Your task to perform on an android device: install app "DuckDuckGo Privacy Browser" Image 0: 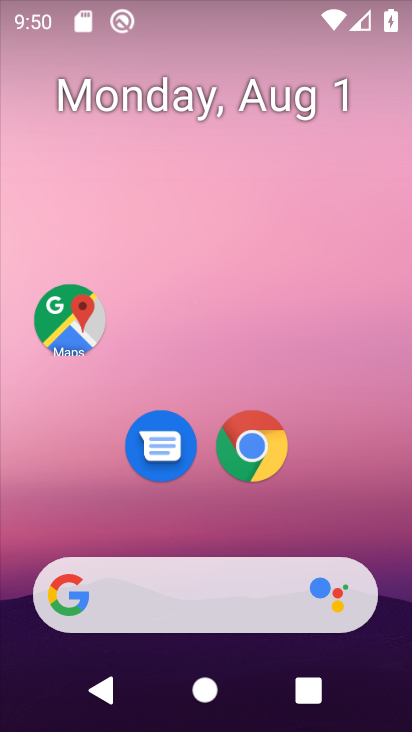
Step 0: drag from (206, 512) to (201, 78)
Your task to perform on an android device: install app "DuckDuckGo Privacy Browser" Image 1: 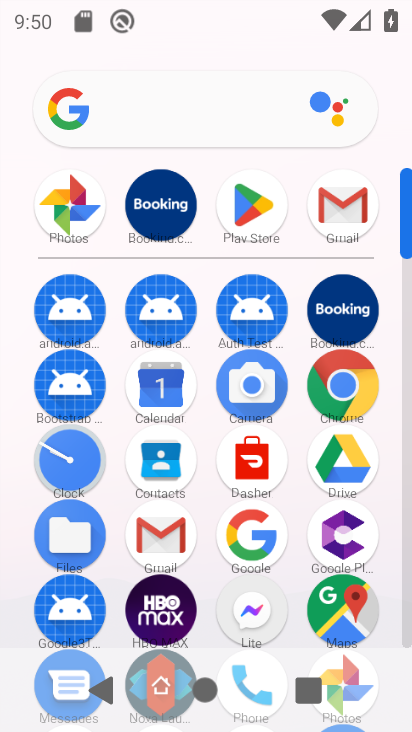
Step 1: click (244, 175)
Your task to perform on an android device: install app "DuckDuckGo Privacy Browser" Image 2: 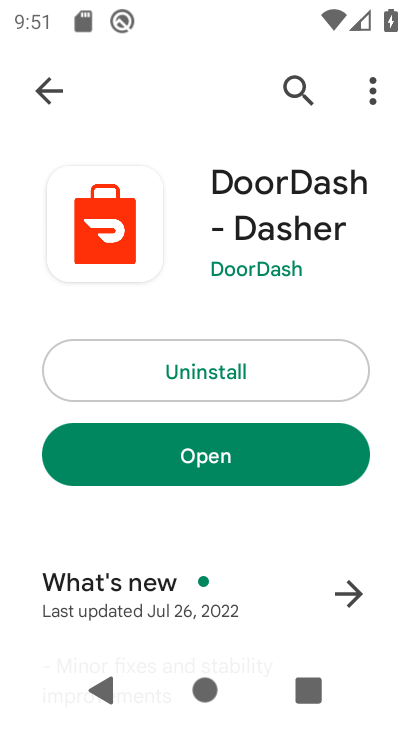
Step 2: click (292, 86)
Your task to perform on an android device: install app "DuckDuckGo Privacy Browser" Image 3: 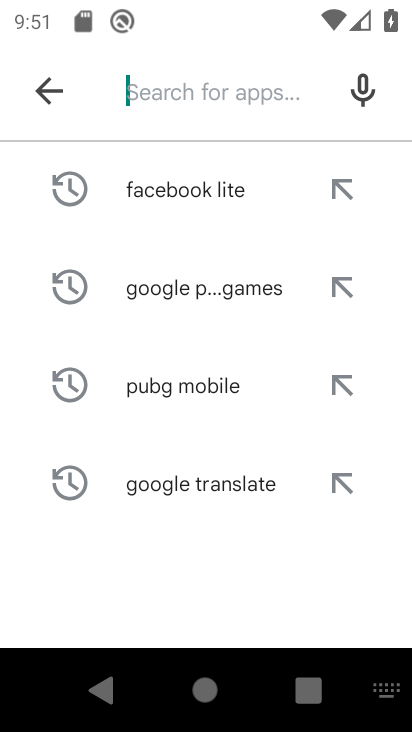
Step 3: type "DuckDuckGo Privacy Browse"
Your task to perform on an android device: install app "DuckDuckGo Privacy Browser" Image 4: 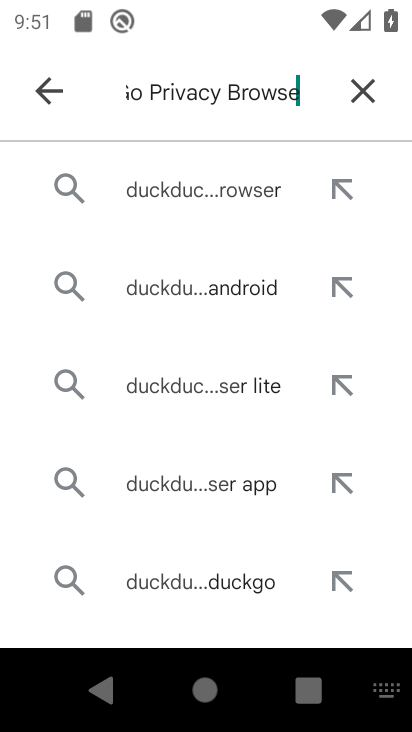
Step 4: type ""
Your task to perform on an android device: install app "DuckDuckGo Privacy Browser" Image 5: 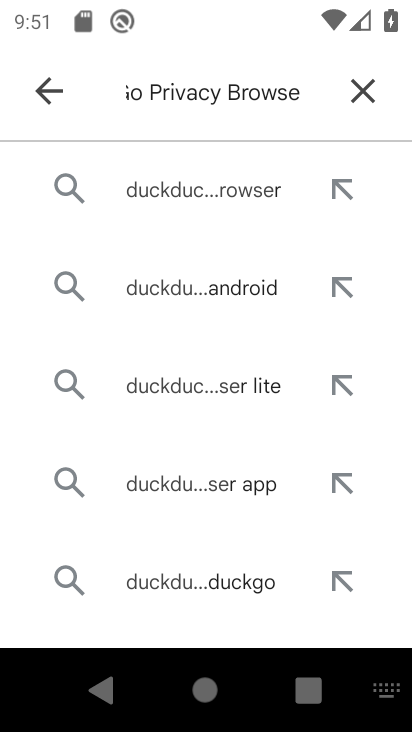
Step 5: click (191, 189)
Your task to perform on an android device: install app "DuckDuckGo Privacy Browser" Image 6: 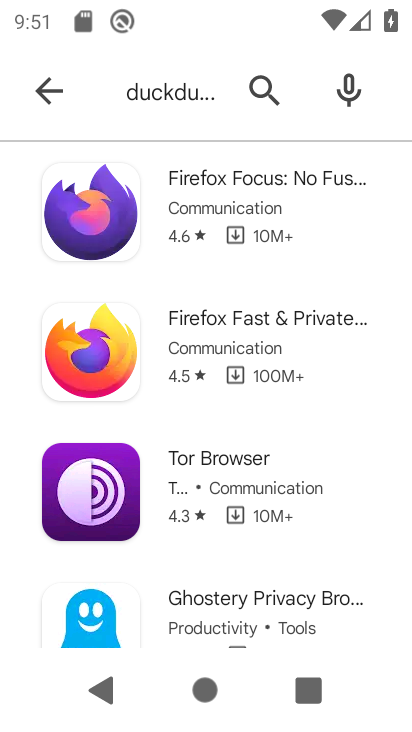
Step 6: task complete